Your task to perform on an android device: What's the top post on reddit today? Image 0: 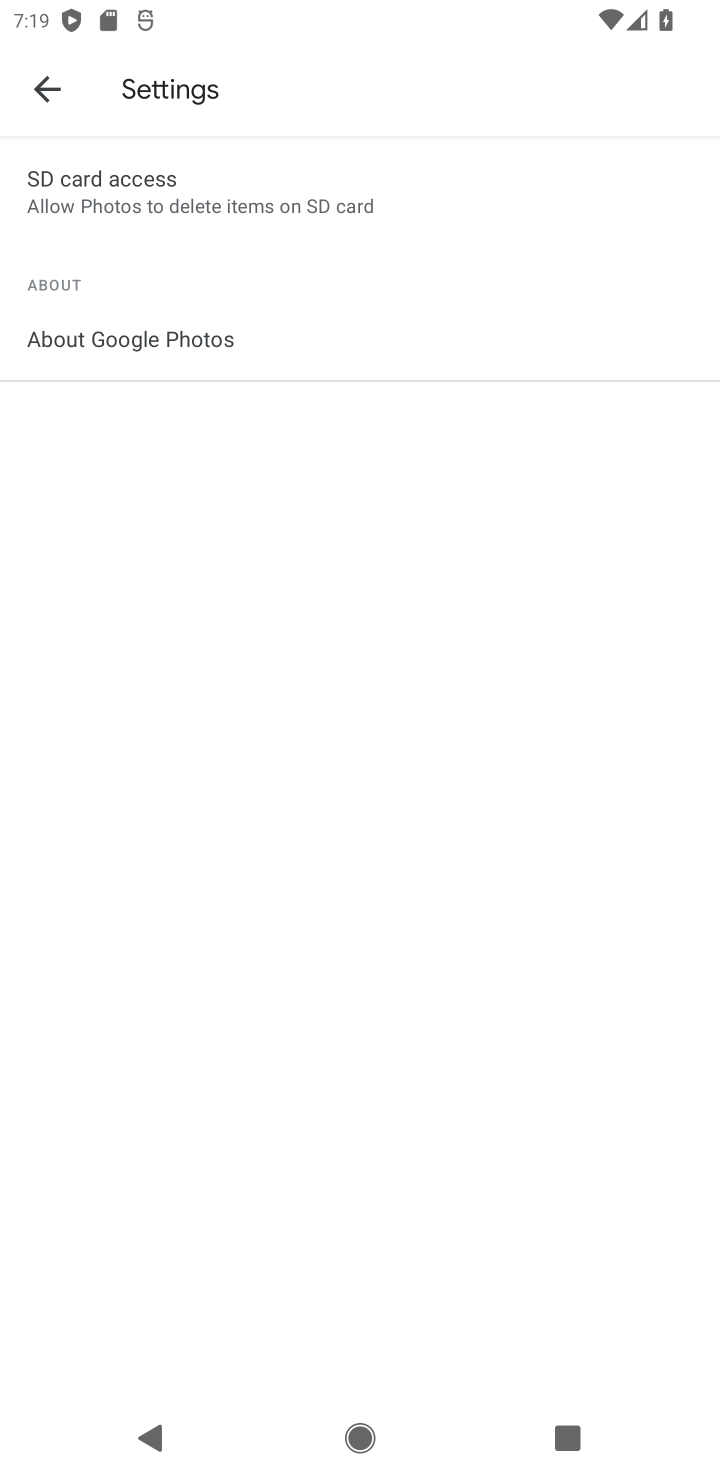
Step 0: press home button
Your task to perform on an android device: What's the top post on reddit today? Image 1: 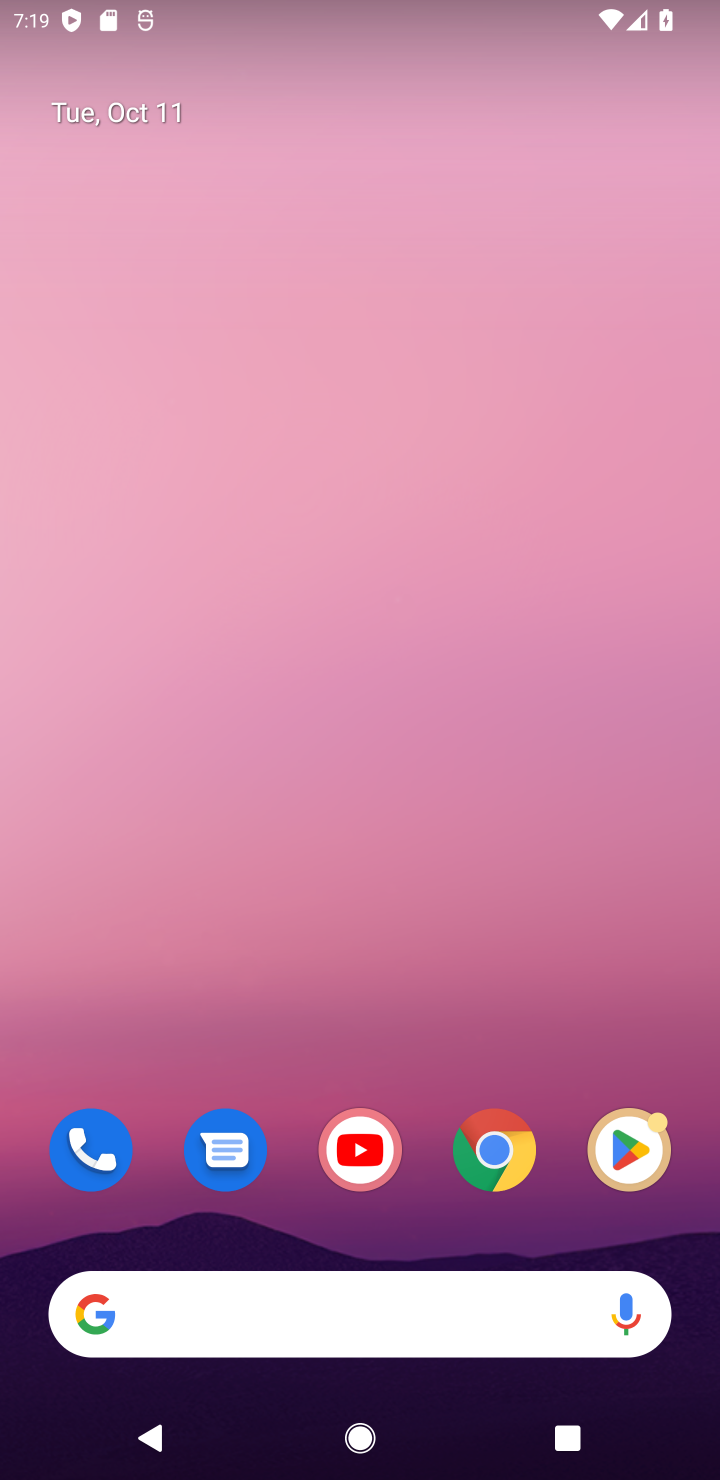
Step 1: click (500, 1153)
Your task to perform on an android device: What's the top post on reddit today? Image 2: 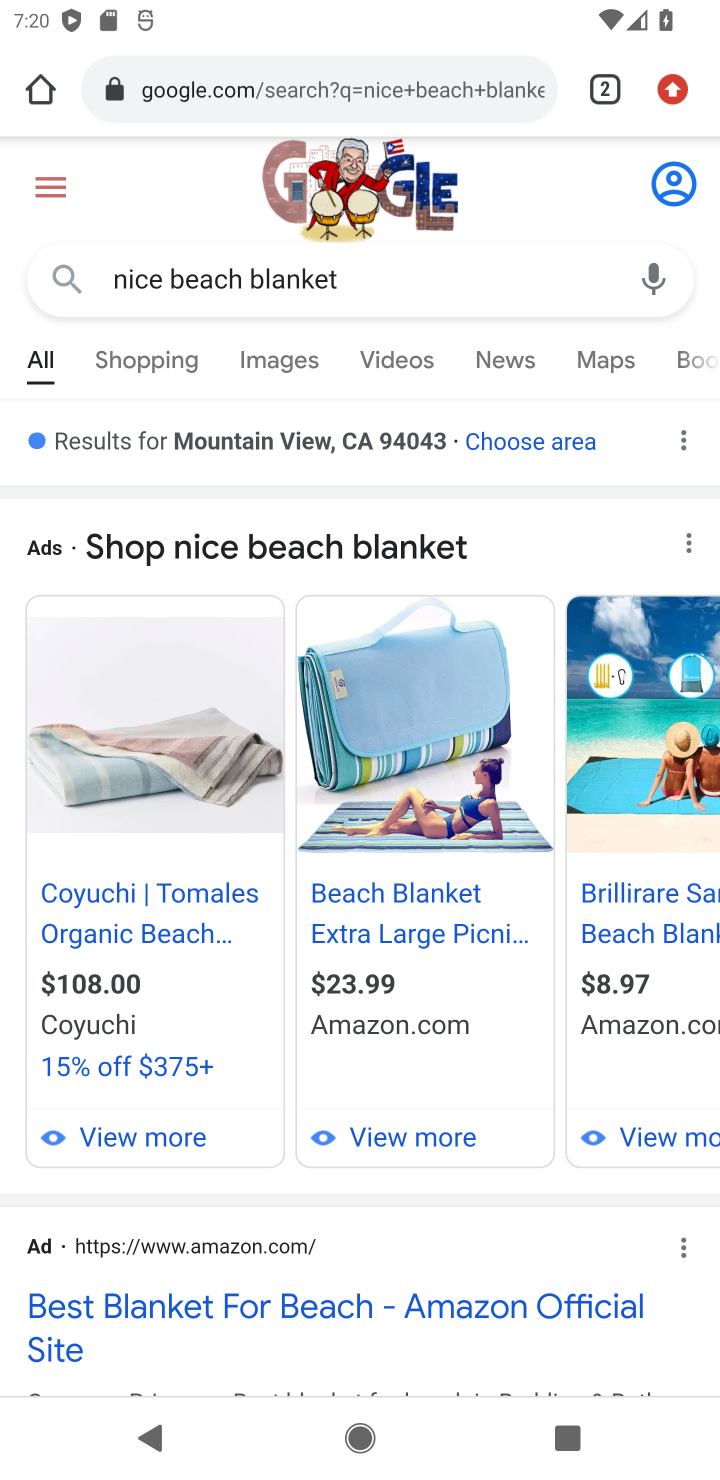
Step 2: click (346, 280)
Your task to perform on an android device: What's the top post on reddit today? Image 3: 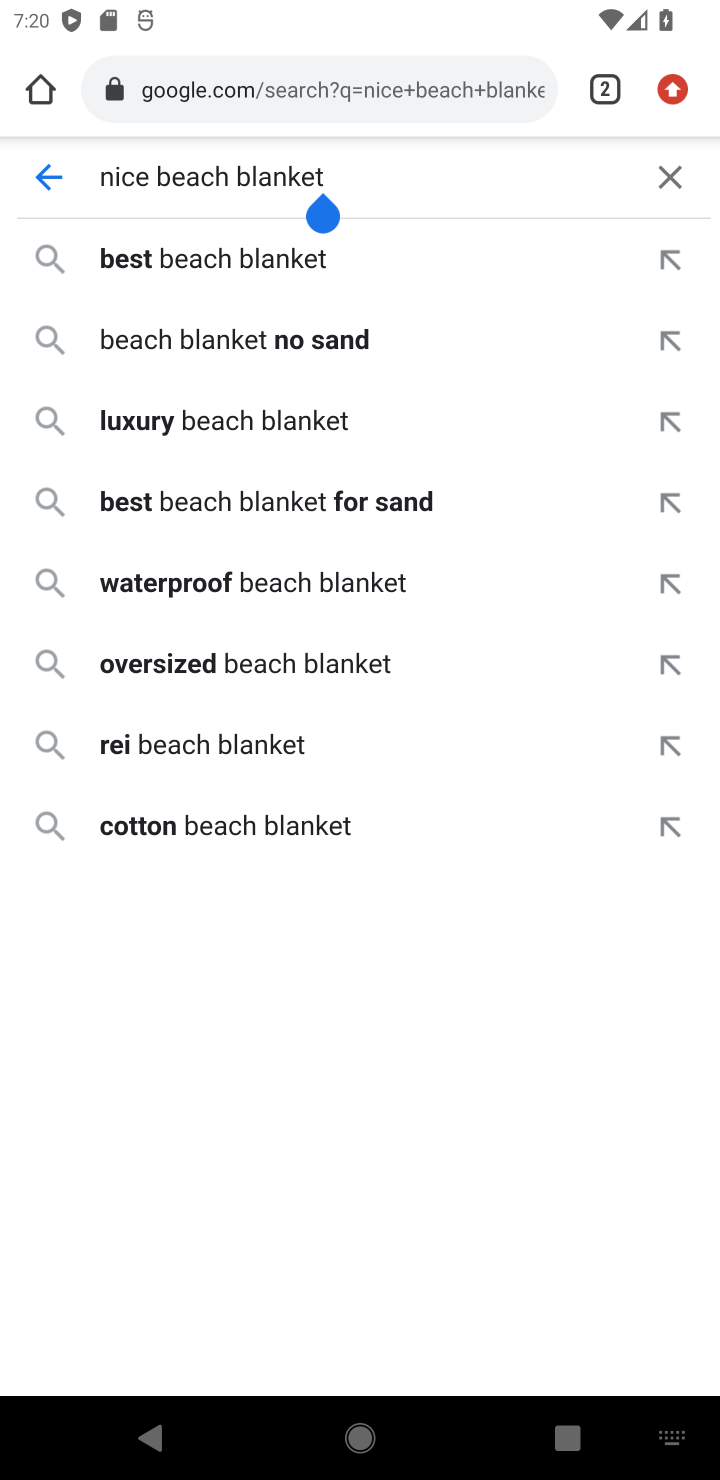
Step 3: click (651, 177)
Your task to perform on an android device: What's the top post on reddit today? Image 4: 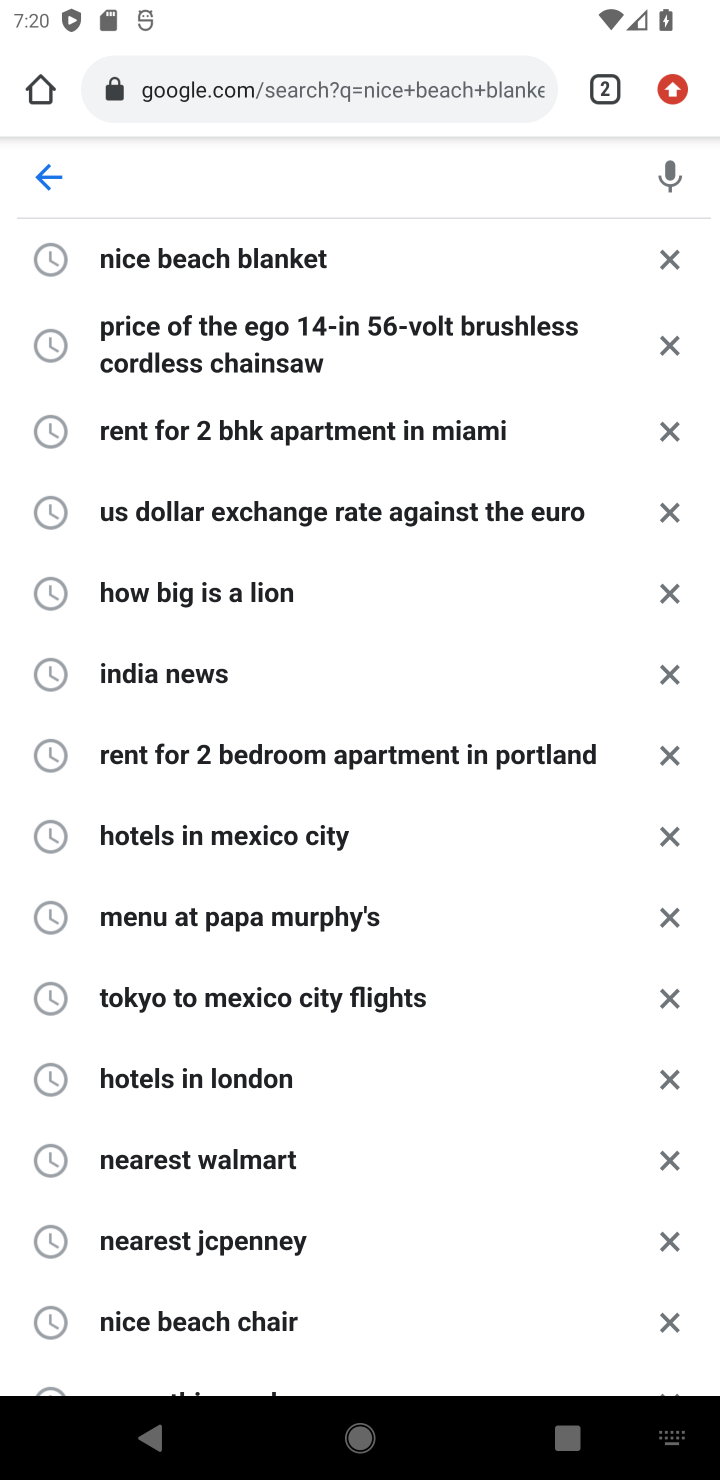
Step 4: type "top post on reddit today"
Your task to perform on an android device: What's the top post on reddit today? Image 5: 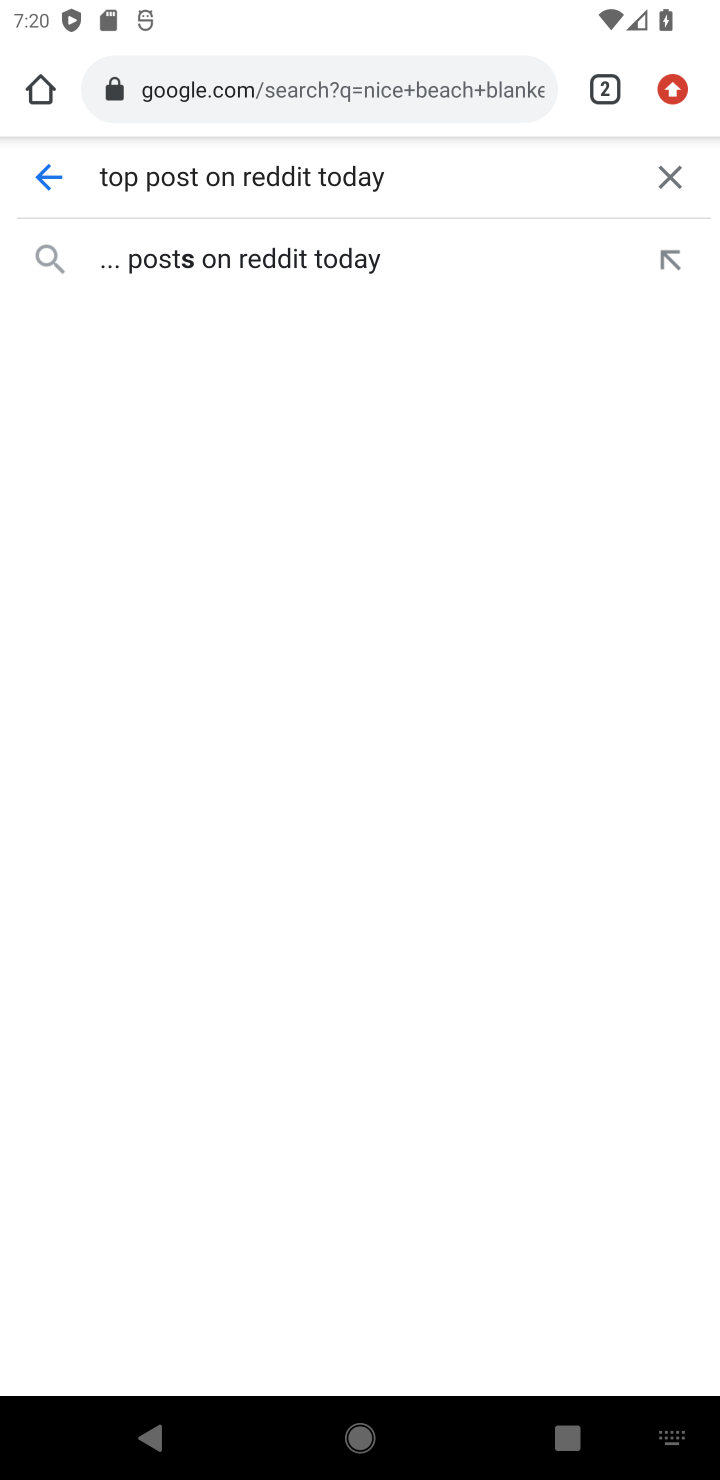
Step 5: click (219, 260)
Your task to perform on an android device: What's the top post on reddit today? Image 6: 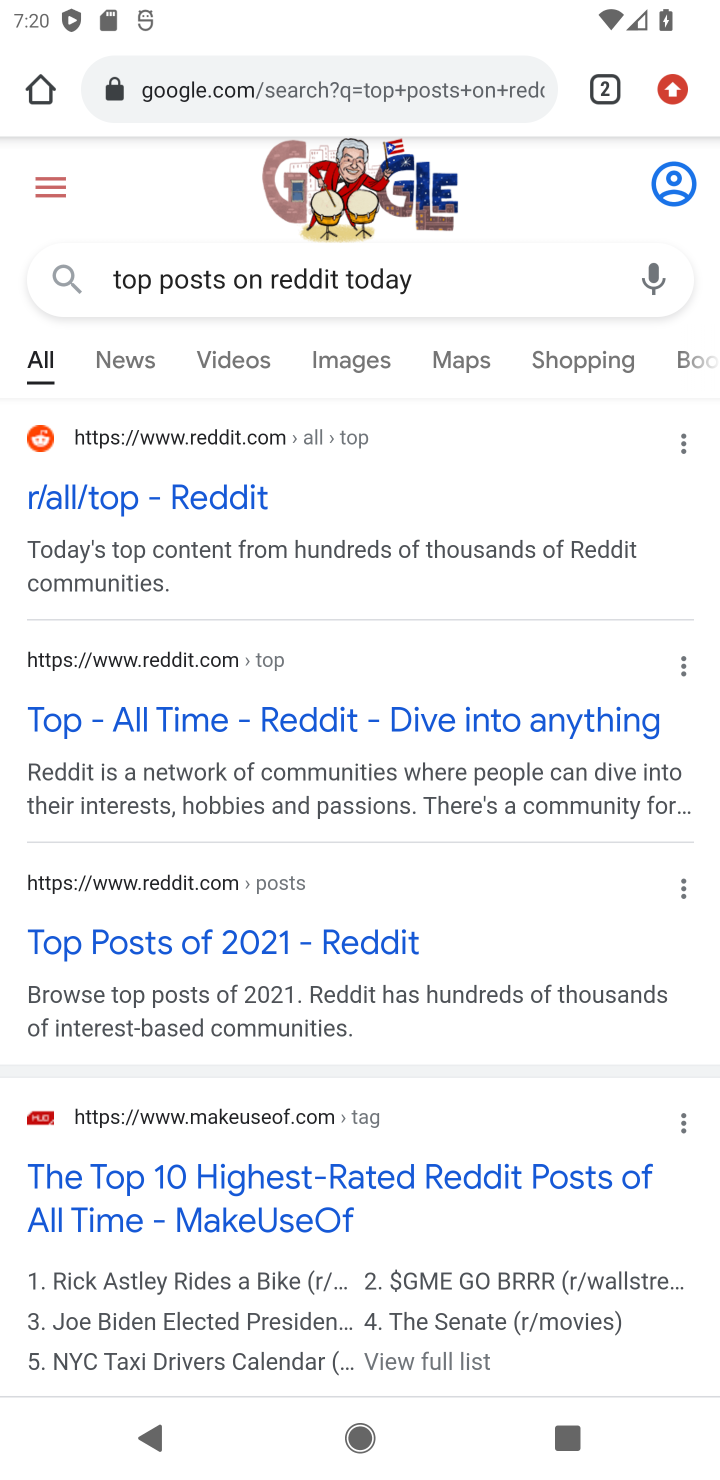
Step 6: click (194, 505)
Your task to perform on an android device: What's the top post on reddit today? Image 7: 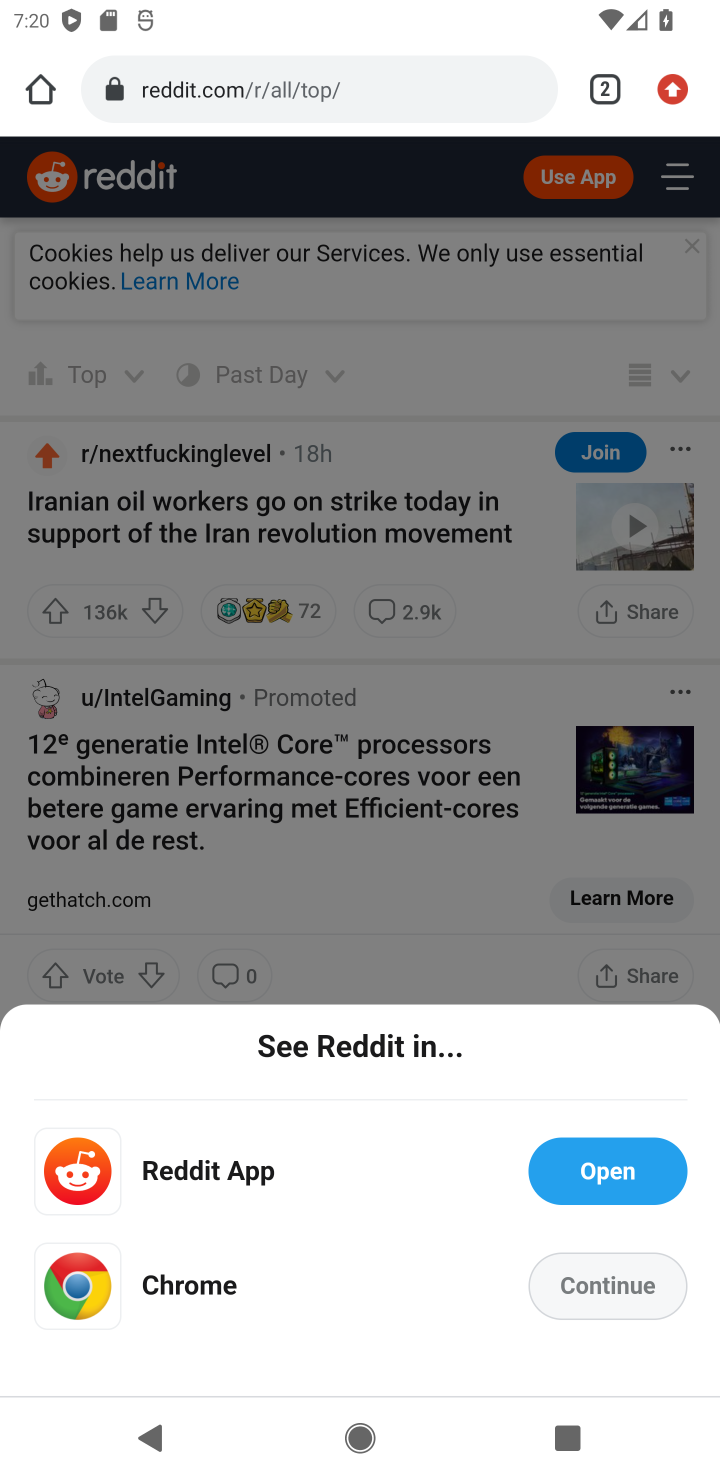
Step 7: click (587, 1291)
Your task to perform on an android device: What's the top post on reddit today? Image 8: 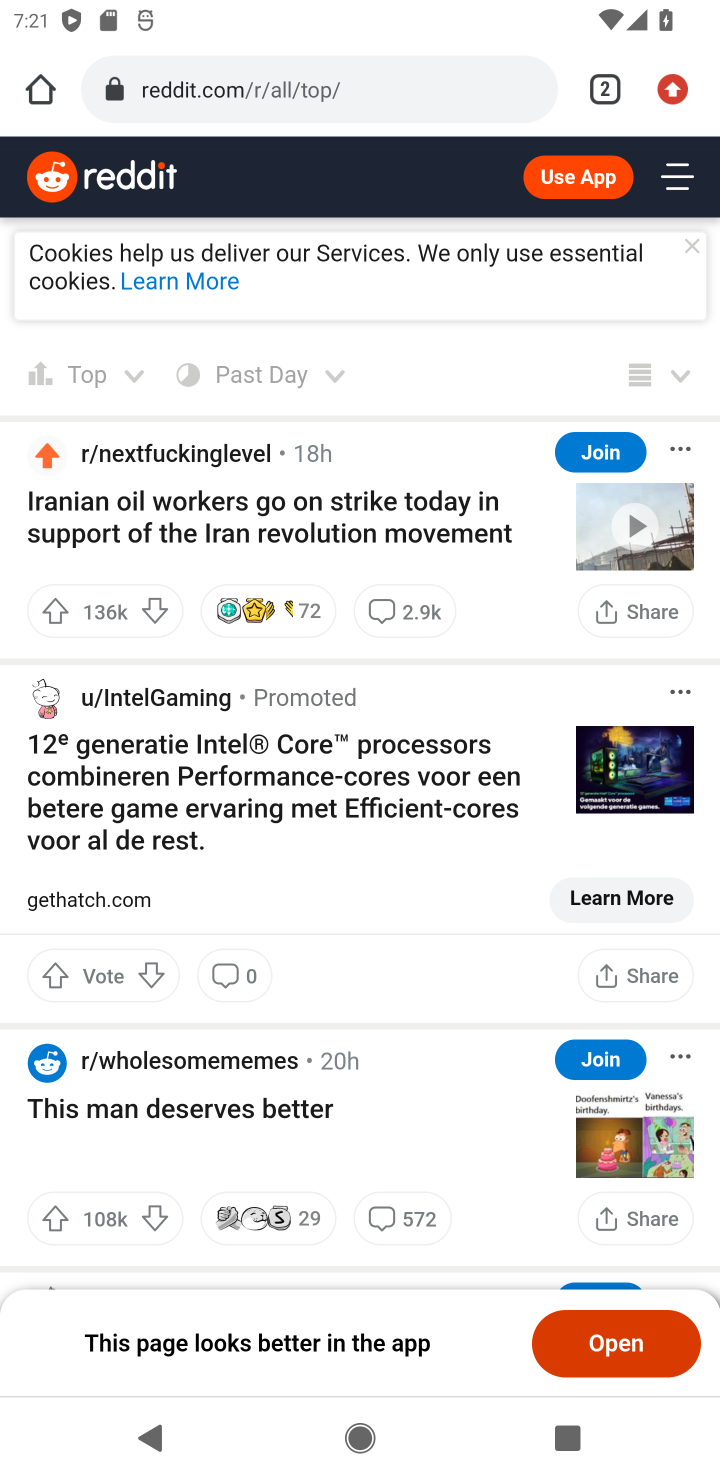
Step 8: task complete